Your task to perform on an android device: set the timer Image 0: 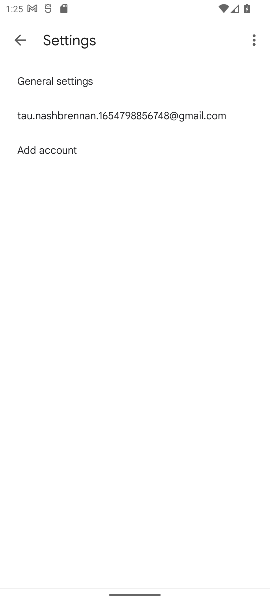
Step 0: press home button
Your task to perform on an android device: set the timer Image 1: 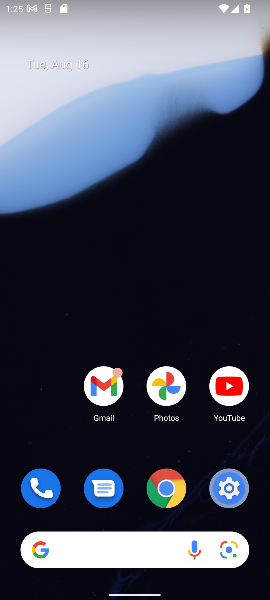
Step 1: drag from (145, 323) to (174, 109)
Your task to perform on an android device: set the timer Image 2: 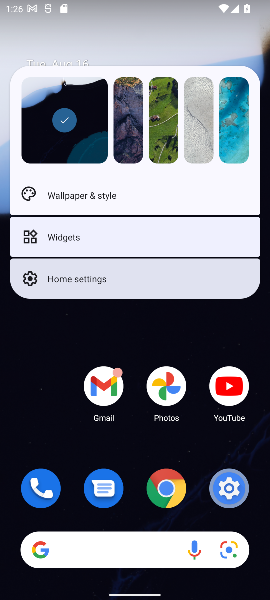
Step 2: click (61, 319)
Your task to perform on an android device: set the timer Image 3: 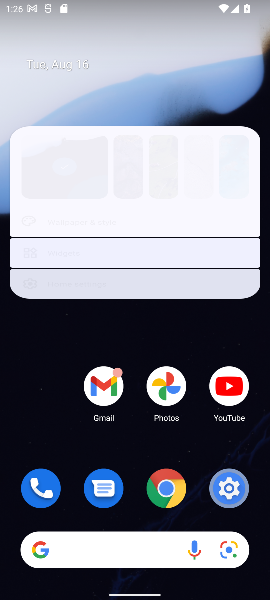
Step 3: click (61, 319)
Your task to perform on an android device: set the timer Image 4: 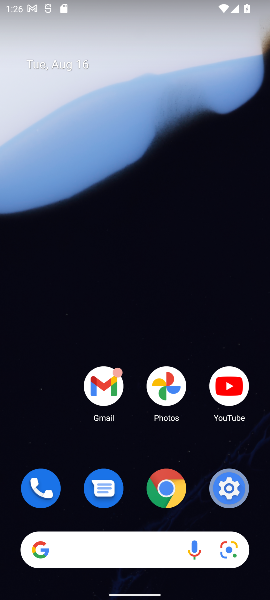
Step 4: drag from (143, 313) to (185, 70)
Your task to perform on an android device: set the timer Image 5: 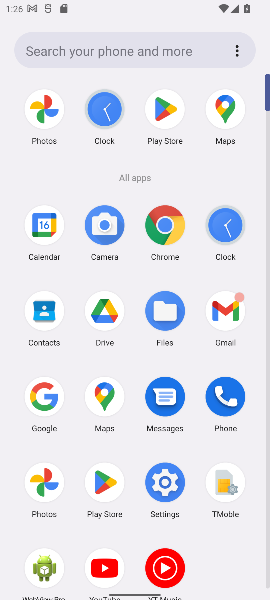
Step 5: click (225, 231)
Your task to perform on an android device: set the timer Image 6: 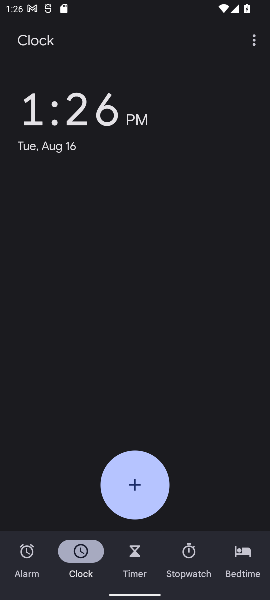
Step 6: task complete